Your task to perform on an android device: Open CNN.com Image 0: 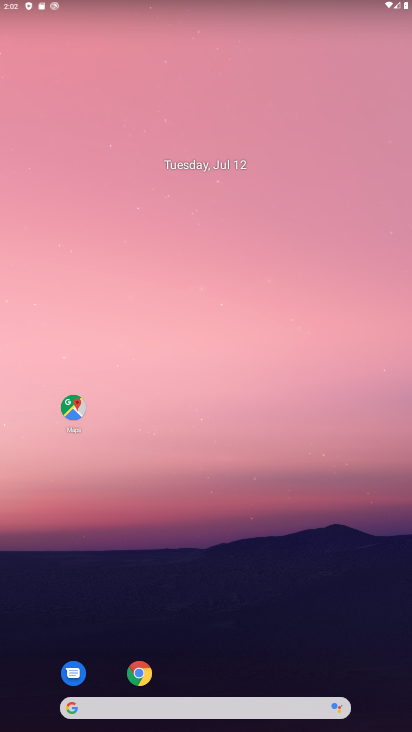
Step 0: click (171, 48)
Your task to perform on an android device: Open CNN.com Image 1: 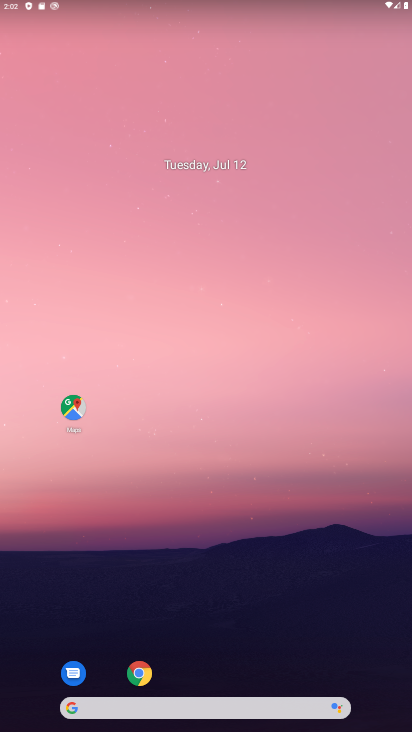
Step 1: drag from (208, 537) to (146, 212)
Your task to perform on an android device: Open CNN.com Image 2: 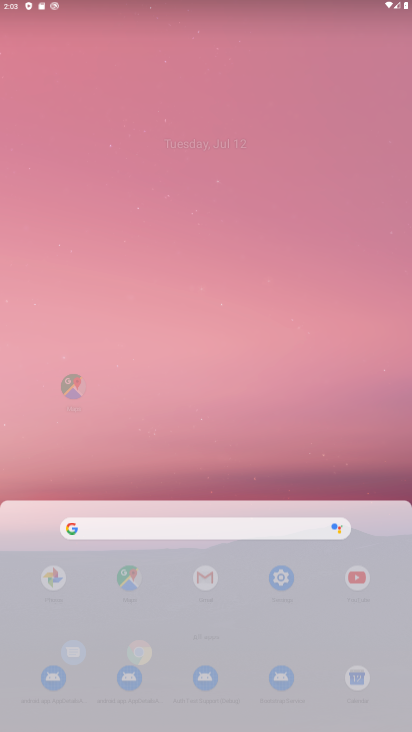
Step 2: drag from (192, 521) to (159, 109)
Your task to perform on an android device: Open CNN.com Image 3: 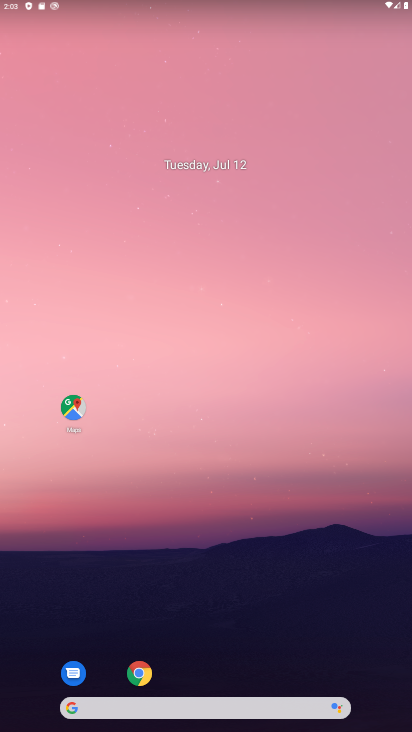
Step 3: drag from (184, 689) to (86, 27)
Your task to perform on an android device: Open CNN.com Image 4: 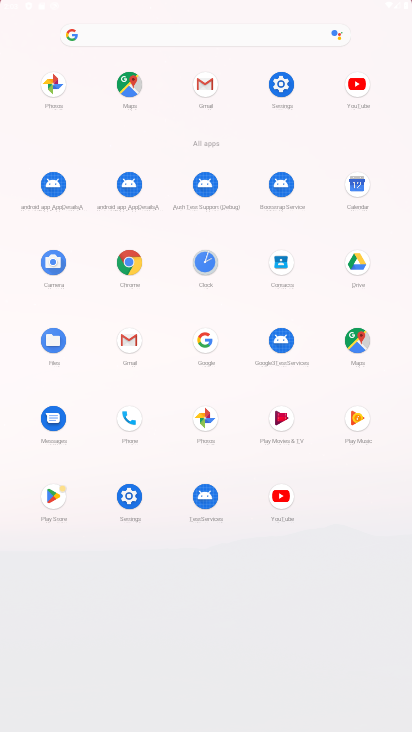
Step 4: drag from (227, 587) to (161, 166)
Your task to perform on an android device: Open CNN.com Image 5: 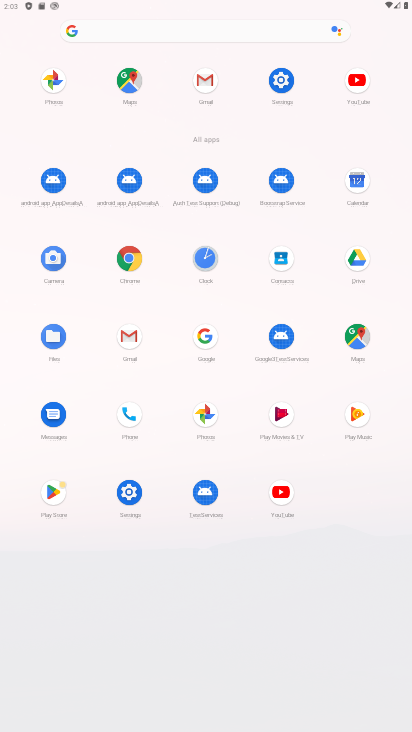
Step 5: click (128, 250)
Your task to perform on an android device: Open CNN.com Image 6: 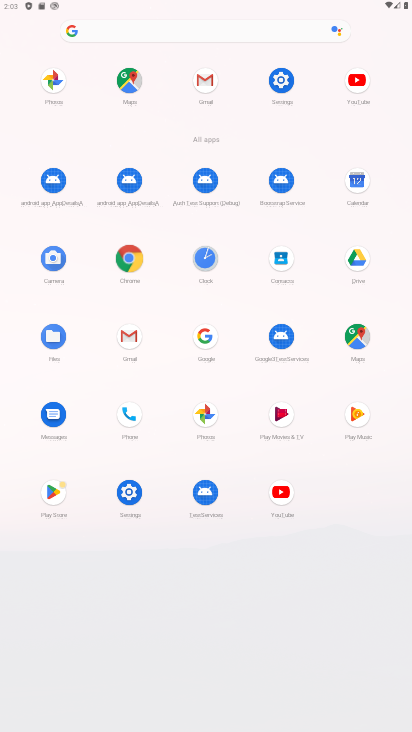
Step 6: click (130, 251)
Your task to perform on an android device: Open CNN.com Image 7: 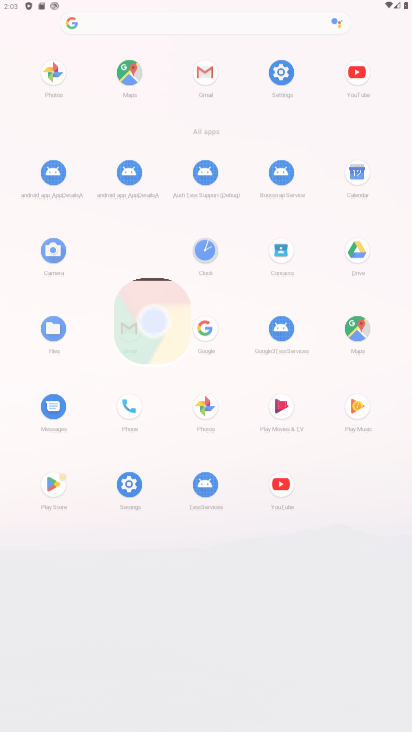
Step 7: click (130, 251)
Your task to perform on an android device: Open CNN.com Image 8: 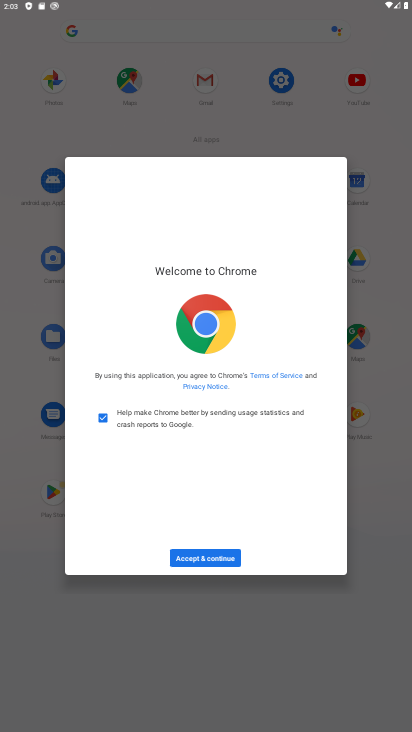
Step 8: click (200, 552)
Your task to perform on an android device: Open CNN.com Image 9: 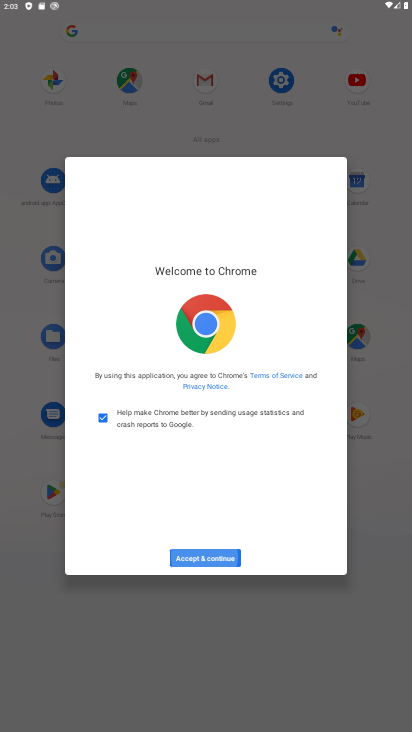
Step 9: click (201, 552)
Your task to perform on an android device: Open CNN.com Image 10: 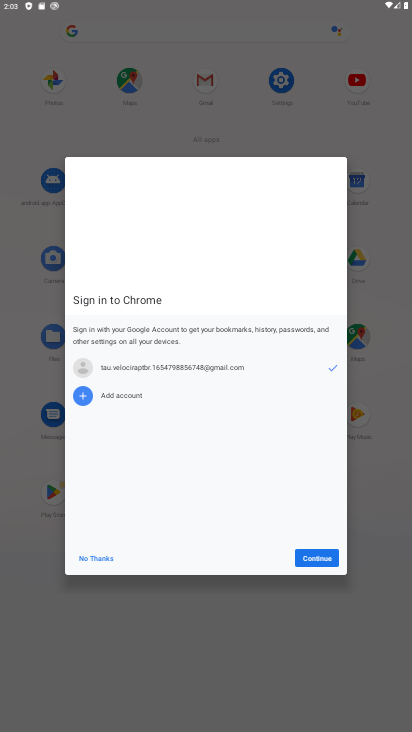
Step 10: click (203, 548)
Your task to perform on an android device: Open CNN.com Image 11: 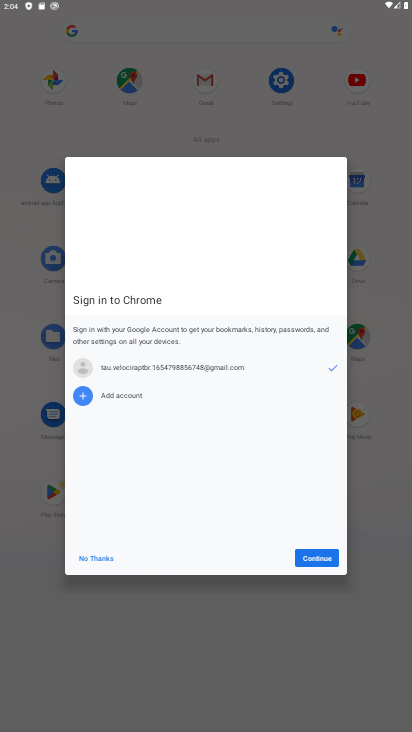
Step 11: click (307, 556)
Your task to perform on an android device: Open CNN.com Image 12: 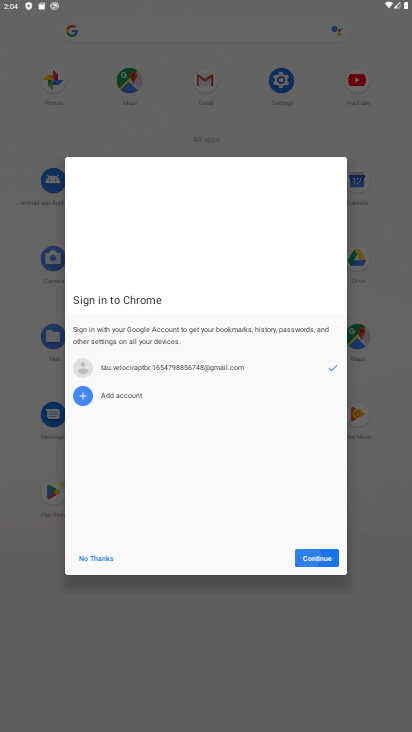
Step 12: click (321, 550)
Your task to perform on an android device: Open CNN.com Image 13: 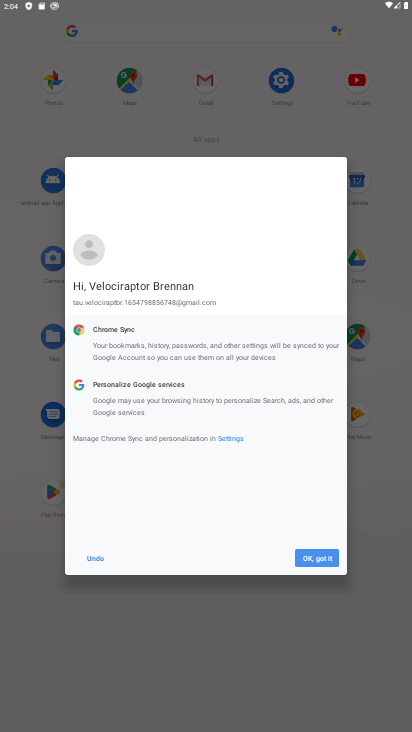
Step 13: click (322, 550)
Your task to perform on an android device: Open CNN.com Image 14: 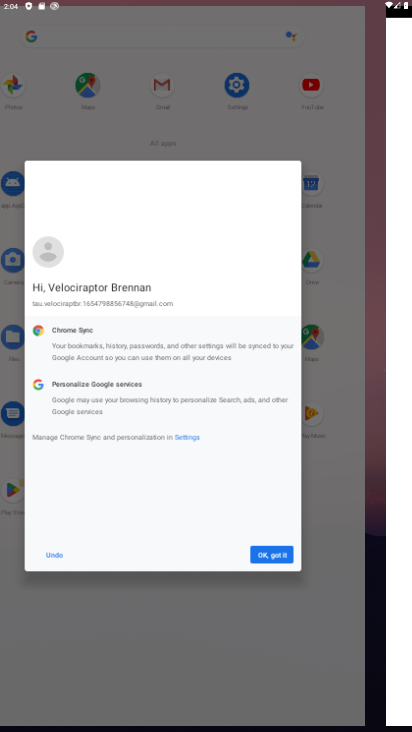
Step 14: click (321, 552)
Your task to perform on an android device: Open CNN.com Image 15: 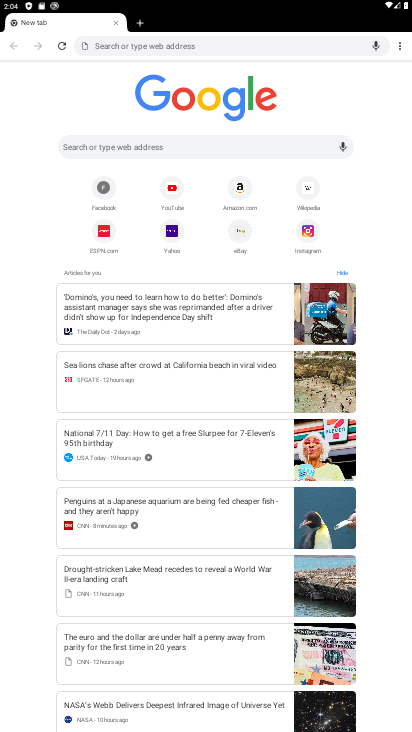
Step 15: click (148, 142)
Your task to perform on an android device: Open CNN.com Image 16: 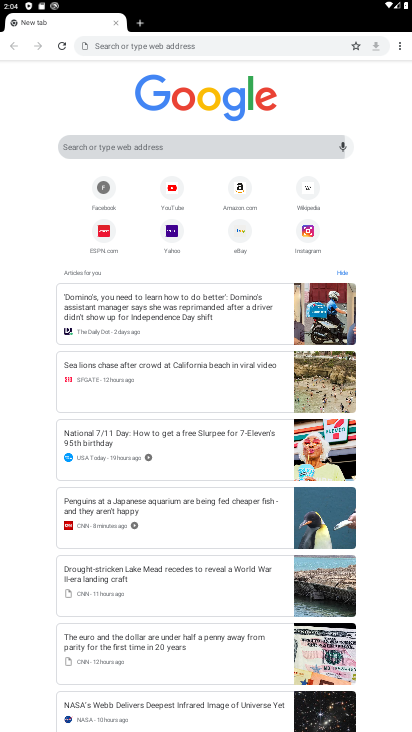
Step 16: click (148, 142)
Your task to perform on an android device: Open CNN.com Image 17: 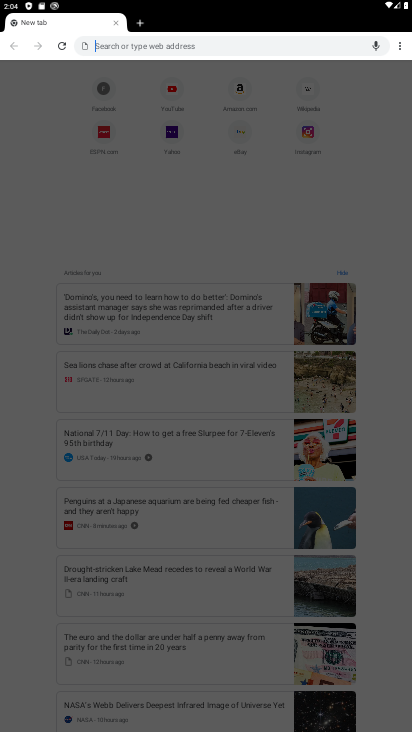
Step 17: click (149, 141)
Your task to perform on an android device: Open CNN.com Image 18: 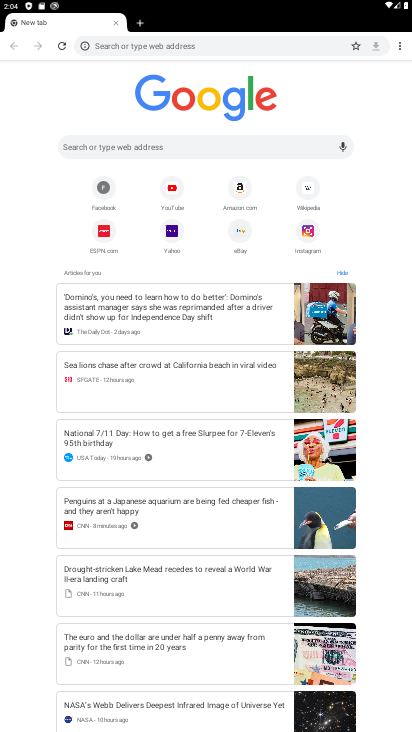
Step 18: type "cnn.com"
Your task to perform on an android device: Open CNN.com Image 19: 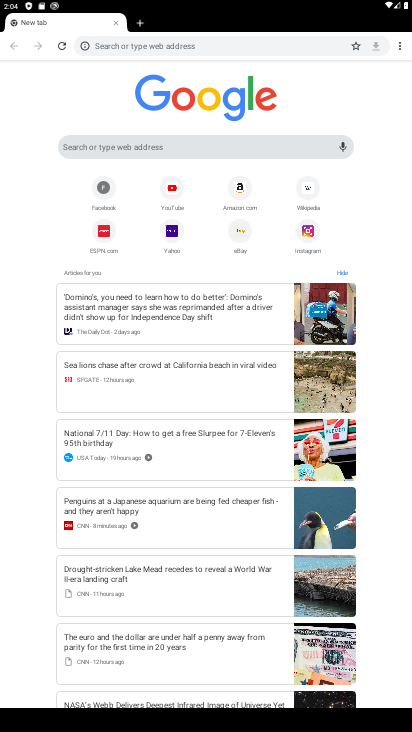
Step 19: task complete